Your task to perform on an android device: turn on notifications settings in the gmail app Image 0: 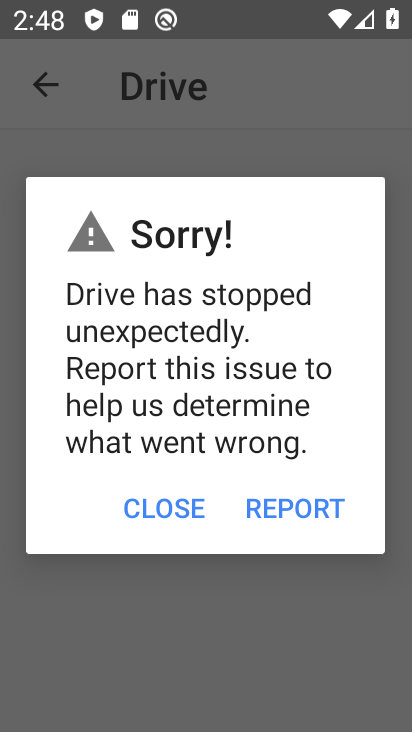
Step 0: click (185, 510)
Your task to perform on an android device: turn on notifications settings in the gmail app Image 1: 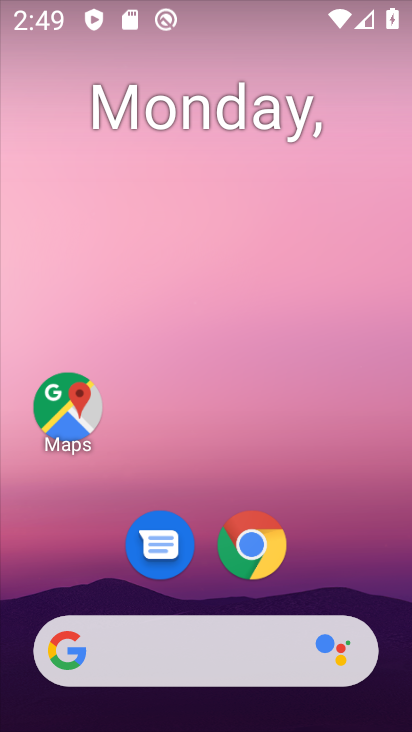
Step 1: drag from (176, 578) to (236, 64)
Your task to perform on an android device: turn on notifications settings in the gmail app Image 2: 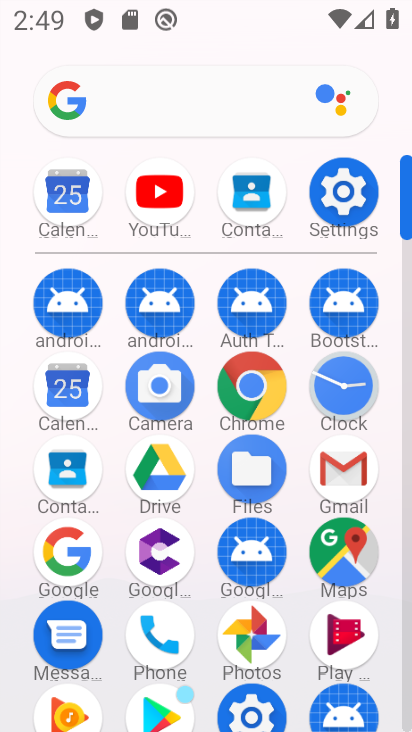
Step 2: click (344, 452)
Your task to perform on an android device: turn on notifications settings in the gmail app Image 3: 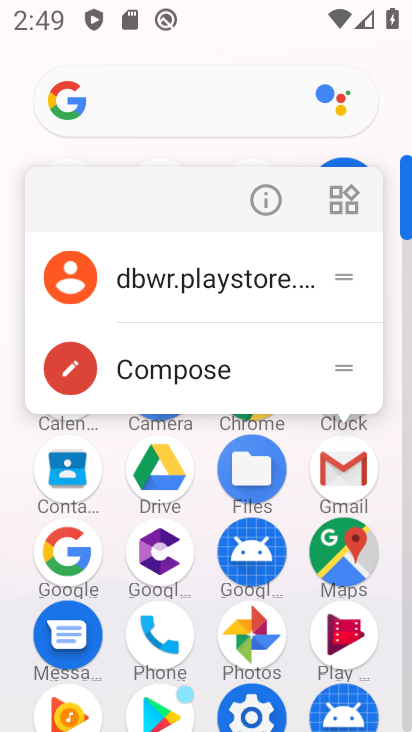
Step 3: click (274, 201)
Your task to perform on an android device: turn on notifications settings in the gmail app Image 4: 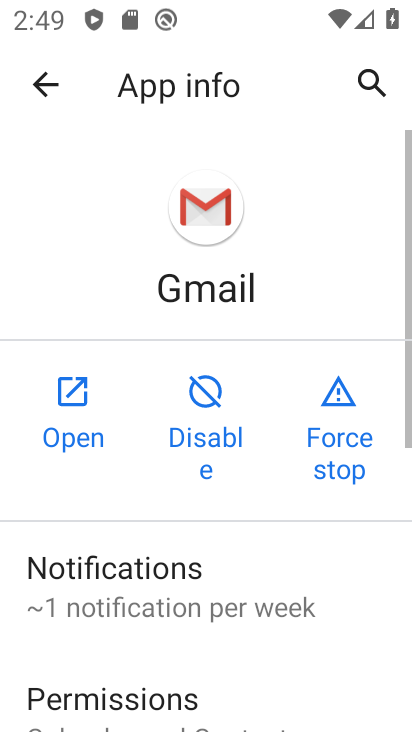
Step 4: click (160, 583)
Your task to perform on an android device: turn on notifications settings in the gmail app Image 5: 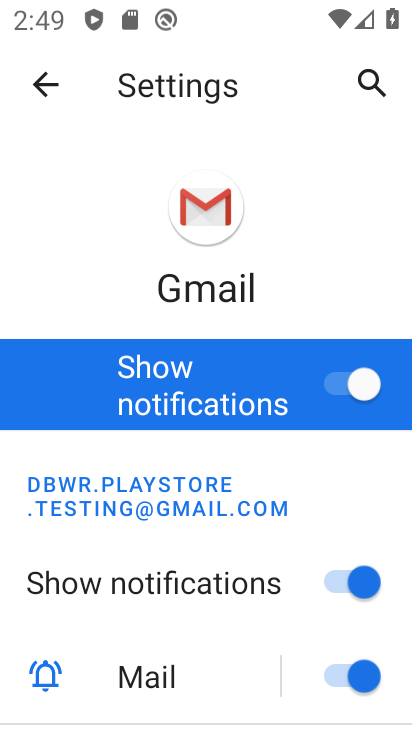
Step 5: task complete